Your task to perform on an android device: see creations saved in the google photos Image 0: 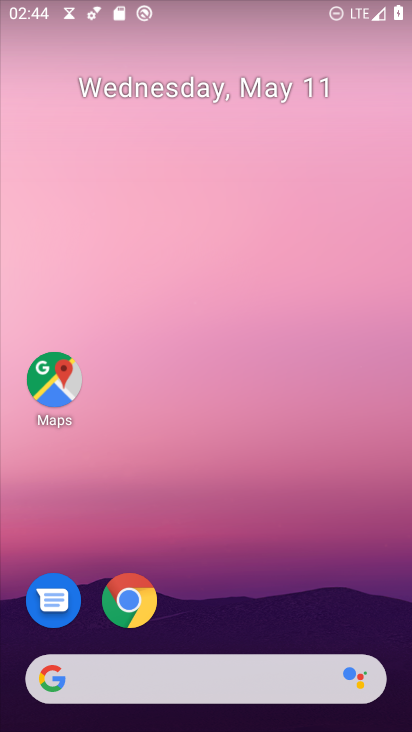
Step 0: drag from (291, 625) to (290, 303)
Your task to perform on an android device: see creations saved in the google photos Image 1: 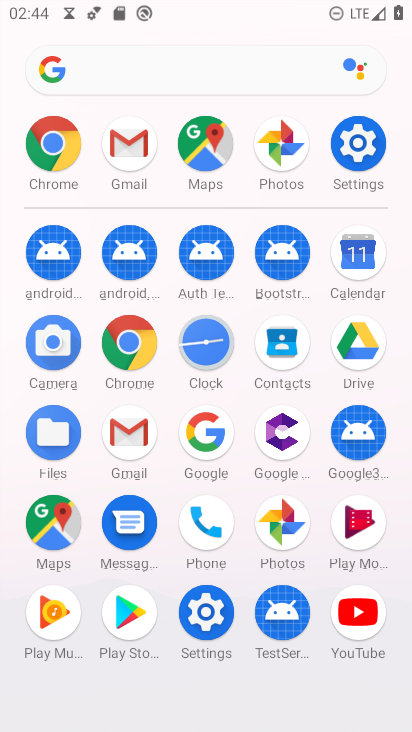
Step 1: click (277, 519)
Your task to perform on an android device: see creations saved in the google photos Image 2: 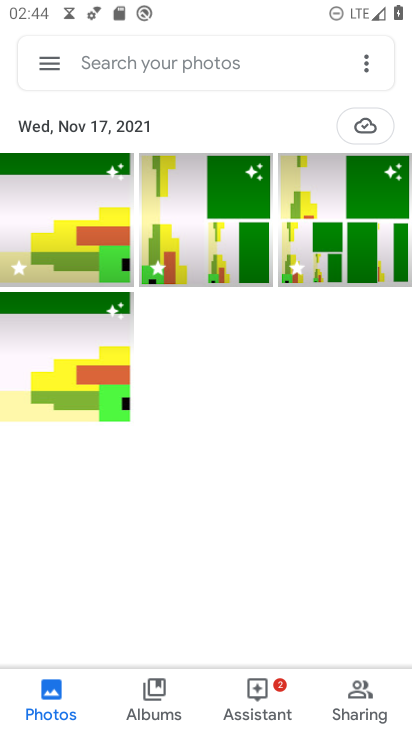
Step 2: task complete